Your task to perform on an android device: turn off notifications settings in the gmail app Image 0: 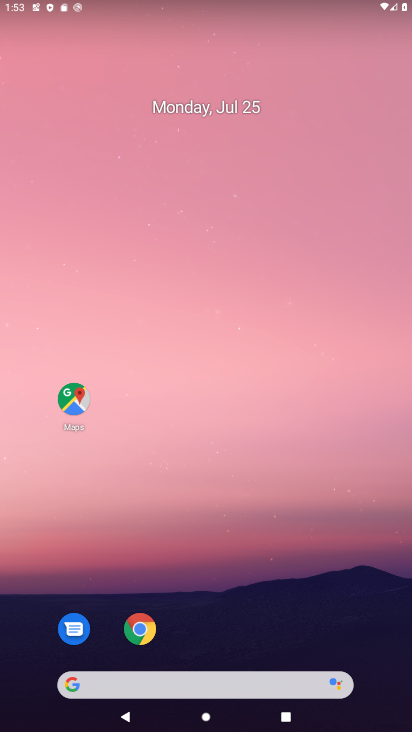
Step 0: drag from (253, 151) to (262, 73)
Your task to perform on an android device: turn off notifications settings in the gmail app Image 1: 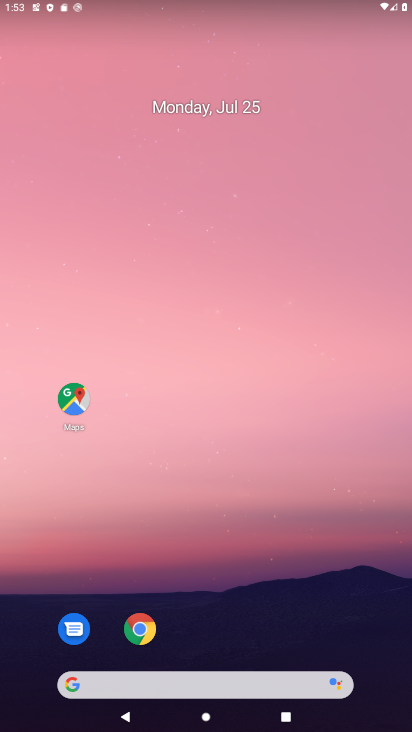
Step 1: drag from (218, 521) to (256, 119)
Your task to perform on an android device: turn off notifications settings in the gmail app Image 2: 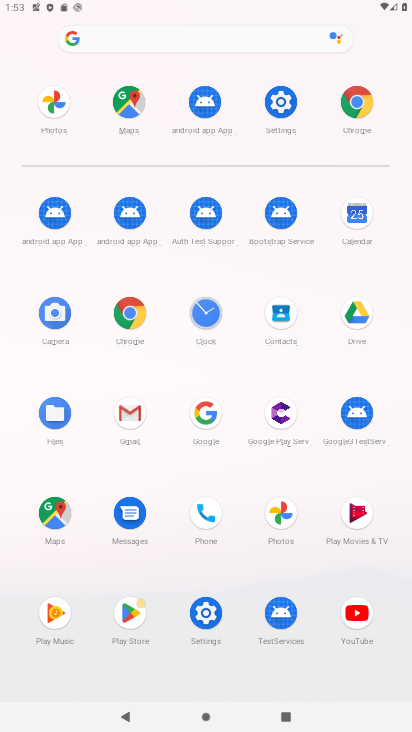
Step 2: drag from (195, 614) to (252, 93)
Your task to perform on an android device: turn off notifications settings in the gmail app Image 3: 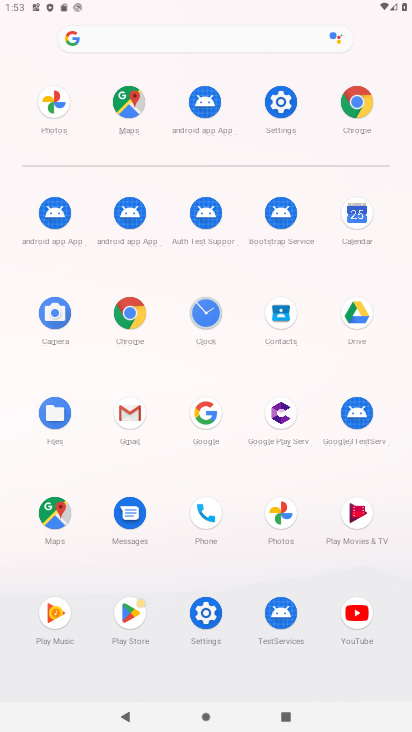
Step 3: press home button
Your task to perform on an android device: turn off notifications settings in the gmail app Image 4: 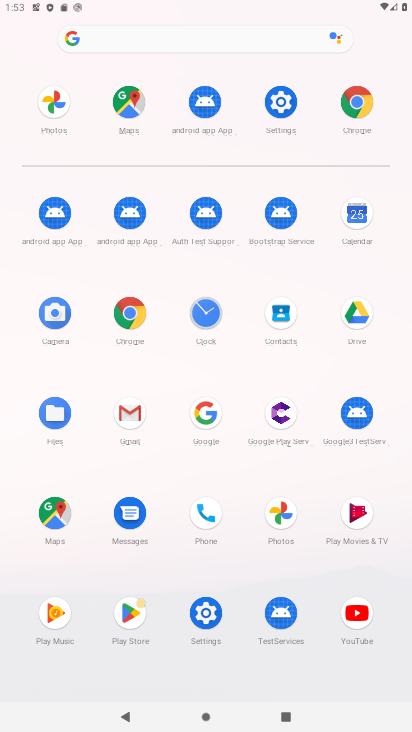
Step 4: click (273, 42)
Your task to perform on an android device: turn off notifications settings in the gmail app Image 5: 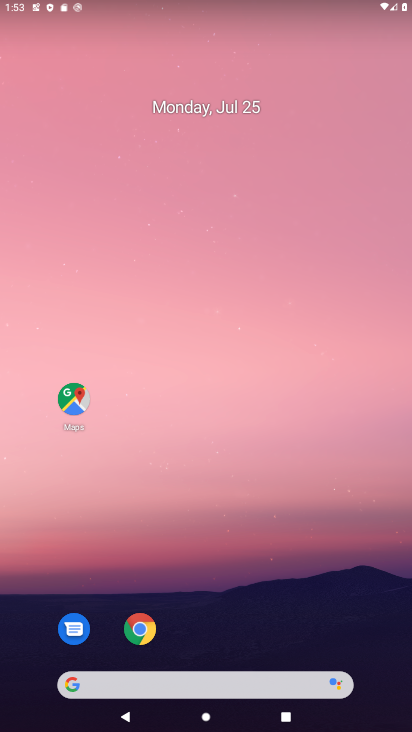
Step 5: drag from (209, 533) to (212, 61)
Your task to perform on an android device: turn off notifications settings in the gmail app Image 6: 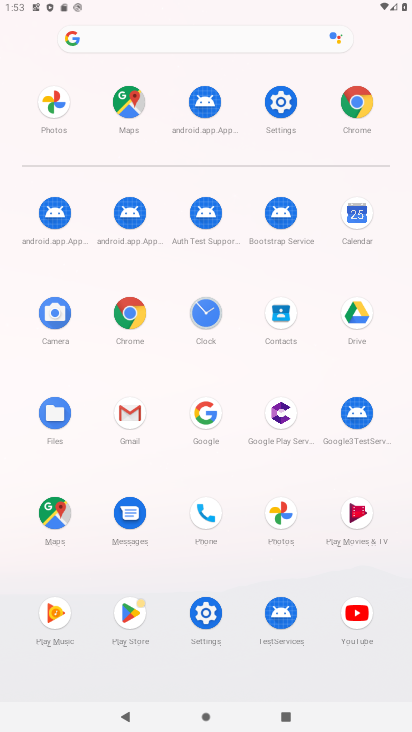
Step 6: click (137, 407)
Your task to perform on an android device: turn off notifications settings in the gmail app Image 7: 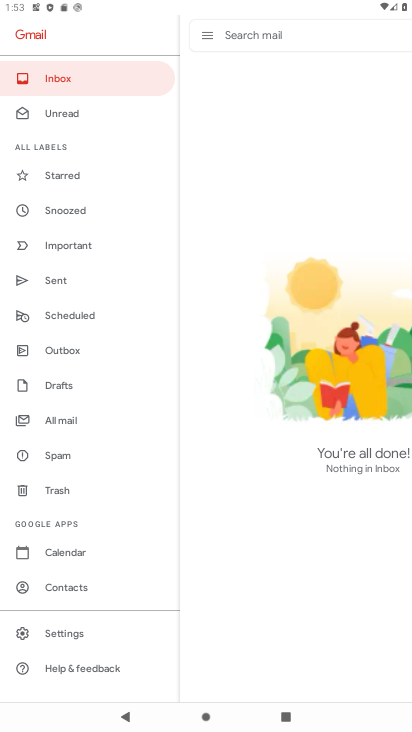
Step 7: drag from (78, 536) to (125, 206)
Your task to perform on an android device: turn off notifications settings in the gmail app Image 8: 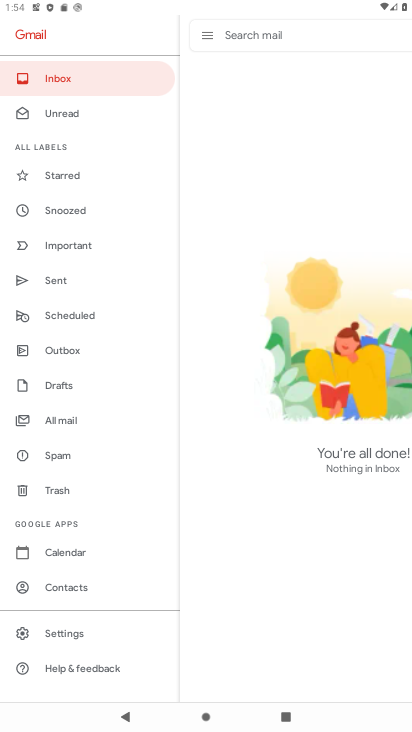
Step 8: click (81, 637)
Your task to perform on an android device: turn off notifications settings in the gmail app Image 9: 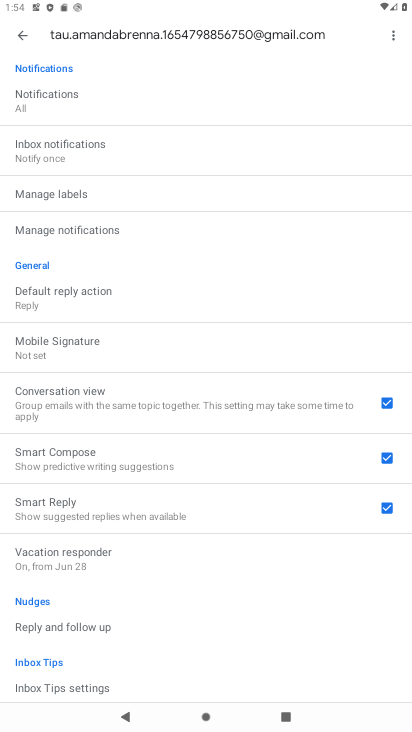
Step 9: drag from (242, 586) to (256, 138)
Your task to perform on an android device: turn off notifications settings in the gmail app Image 10: 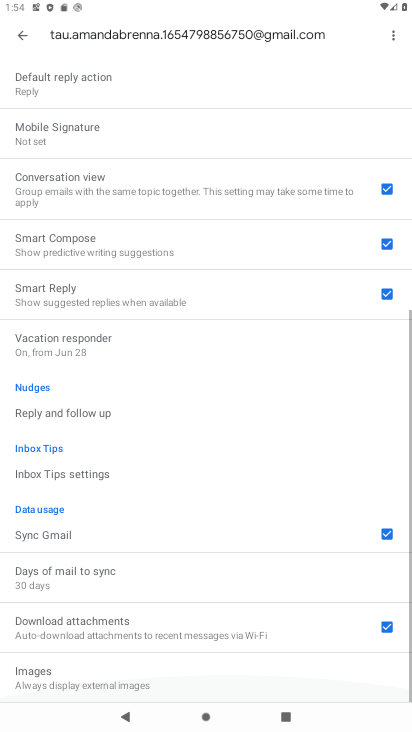
Step 10: drag from (229, 39) to (230, 701)
Your task to perform on an android device: turn off notifications settings in the gmail app Image 11: 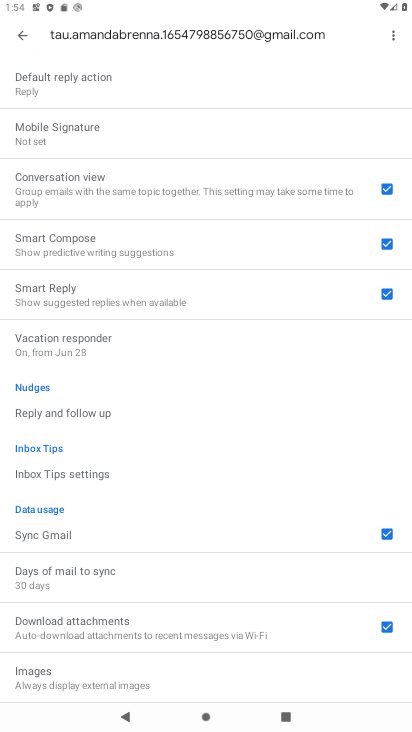
Step 11: drag from (150, 605) to (220, 728)
Your task to perform on an android device: turn off notifications settings in the gmail app Image 12: 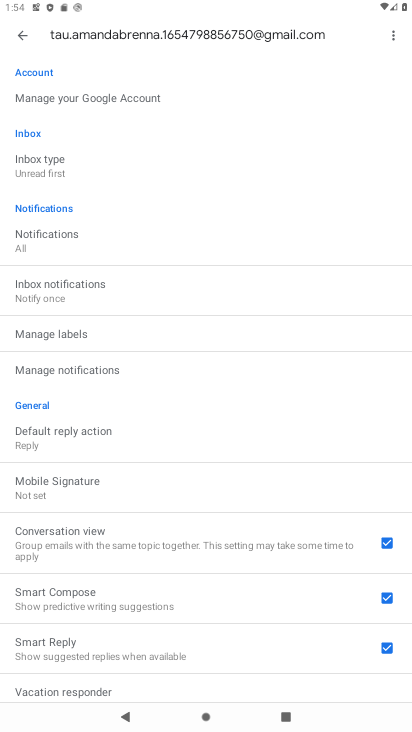
Step 12: click (70, 370)
Your task to perform on an android device: turn off notifications settings in the gmail app Image 13: 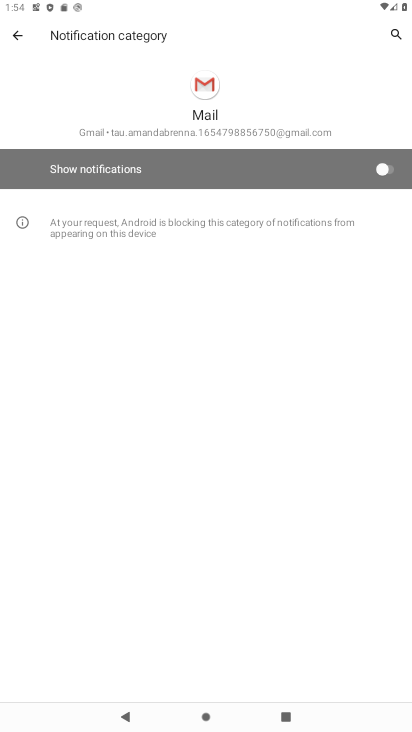
Step 13: task complete